Your task to perform on an android device: Go to location settings Image 0: 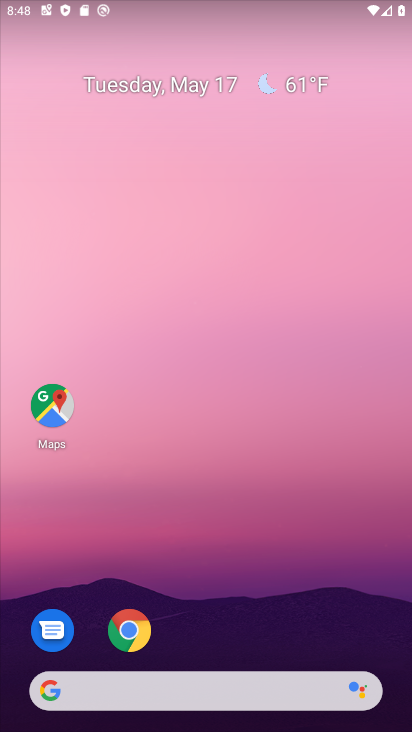
Step 0: drag from (194, 663) to (350, 171)
Your task to perform on an android device: Go to location settings Image 1: 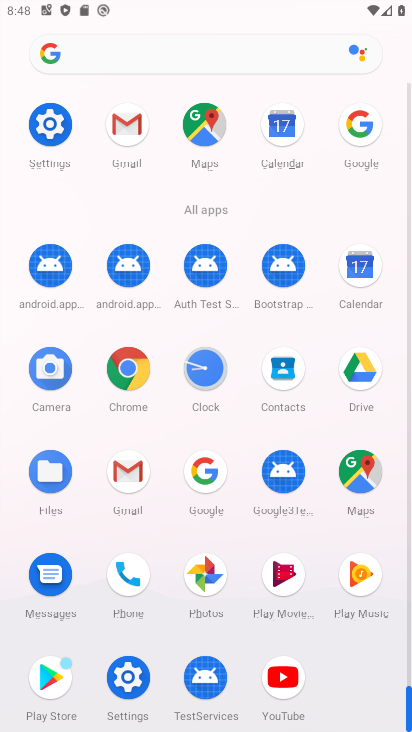
Step 1: click (120, 695)
Your task to perform on an android device: Go to location settings Image 2: 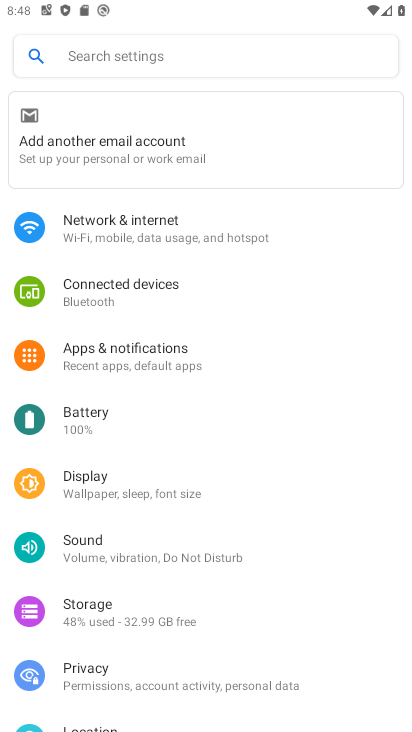
Step 2: drag from (120, 695) to (268, 425)
Your task to perform on an android device: Go to location settings Image 3: 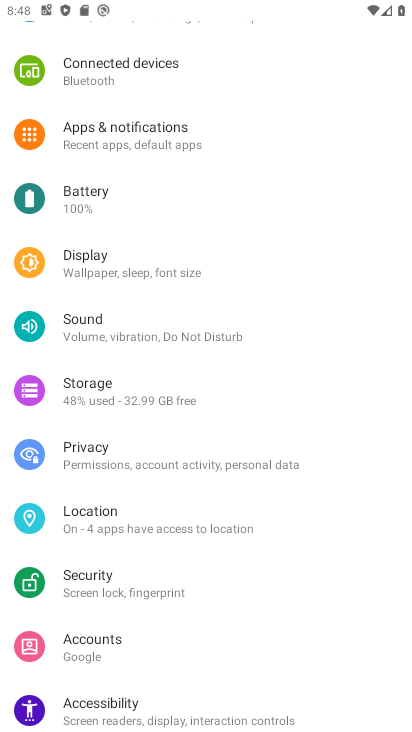
Step 3: drag from (174, 633) to (249, 381)
Your task to perform on an android device: Go to location settings Image 4: 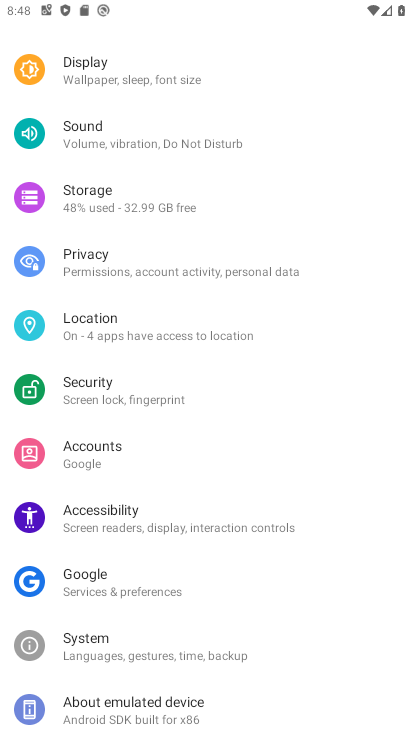
Step 4: click (145, 343)
Your task to perform on an android device: Go to location settings Image 5: 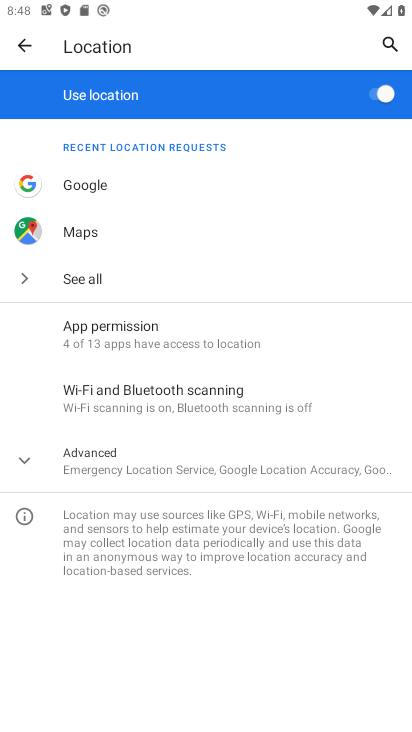
Step 5: task complete